Your task to perform on an android device: turn on bluetooth scan Image 0: 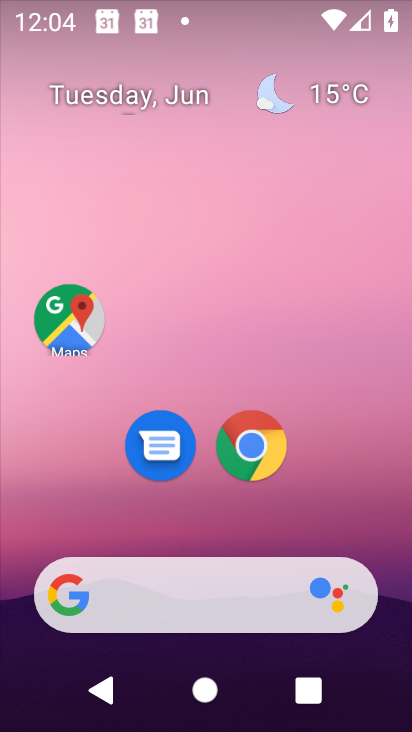
Step 0: drag from (190, 542) to (189, 109)
Your task to perform on an android device: turn on bluetooth scan Image 1: 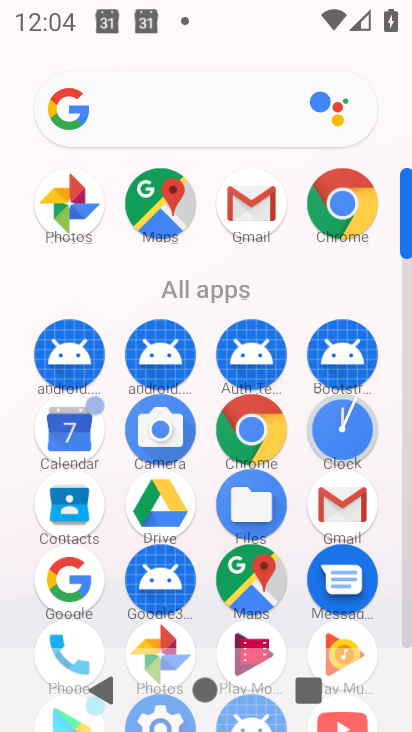
Step 1: drag from (208, 629) to (231, 20)
Your task to perform on an android device: turn on bluetooth scan Image 2: 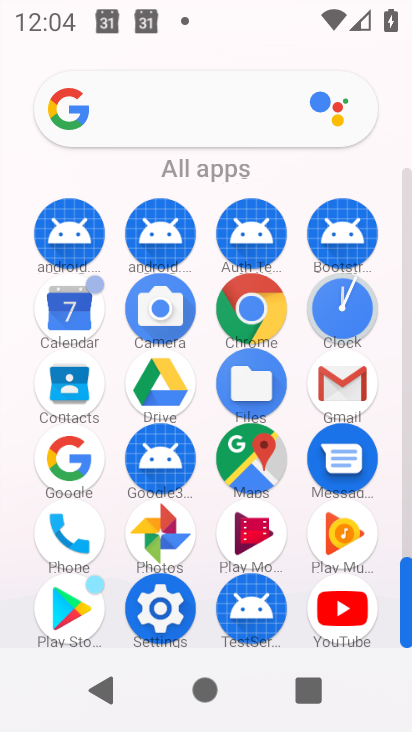
Step 2: click (179, 595)
Your task to perform on an android device: turn on bluetooth scan Image 3: 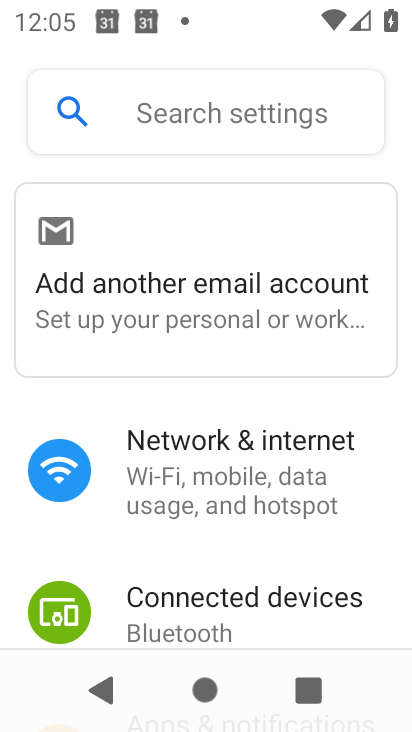
Step 3: drag from (179, 595) to (207, 150)
Your task to perform on an android device: turn on bluetooth scan Image 4: 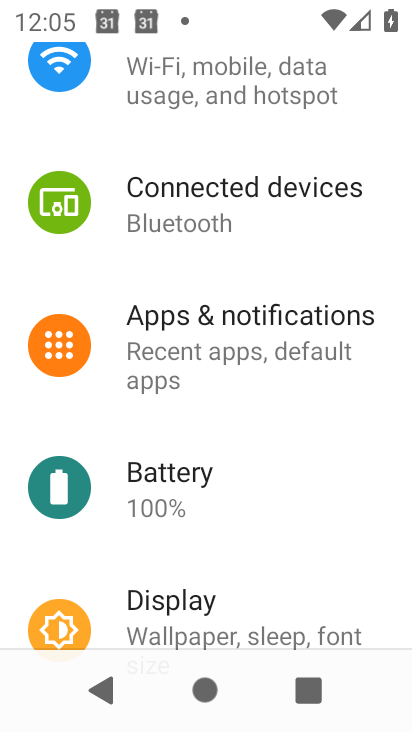
Step 4: drag from (133, 525) to (175, 67)
Your task to perform on an android device: turn on bluetooth scan Image 5: 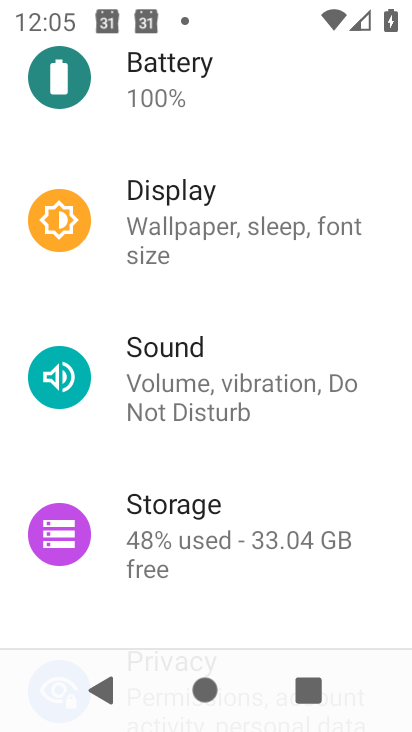
Step 5: drag from (122, 537) to (209, 16)
Your task to perform on an android device: turn on bluetooth scan Image 6: 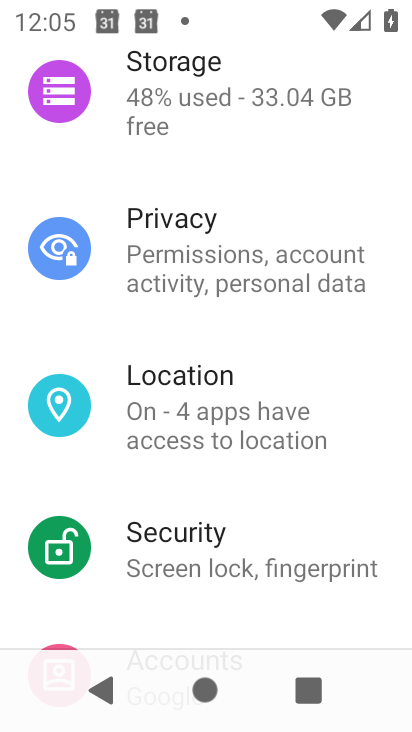
Step 6: click (184, 394)
Your task to perform on an android device: turn on bluetooth scan Image 7: 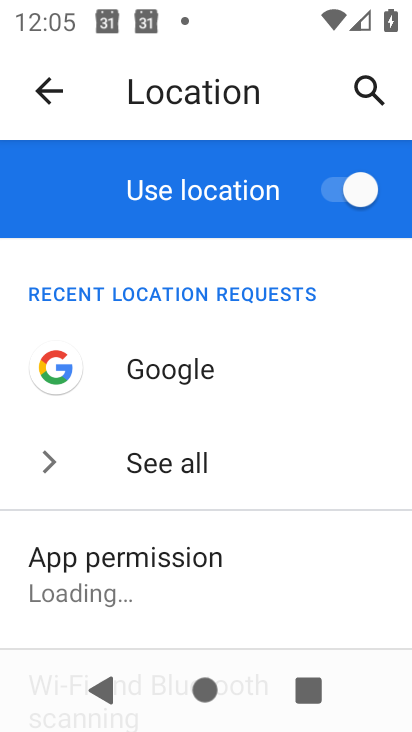
Step 7: drag from (113, 540) to (197, 29)
Your task to perform on an android device: turn on bluetooth scan Image 8: 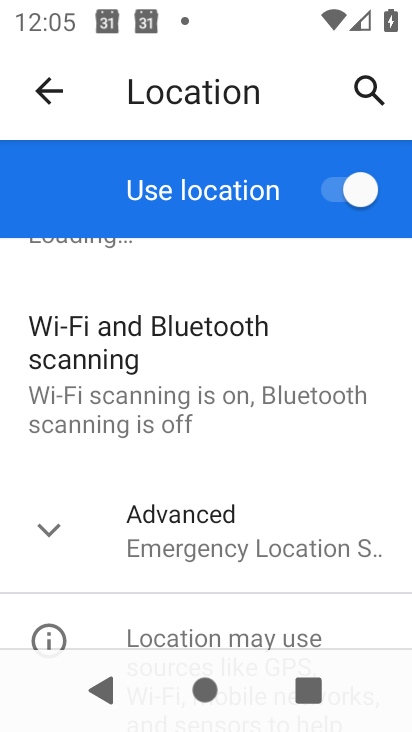
Step 8: click (124, 371)
Your task to perform on an android device: turn on bluetooth scan Image 9: 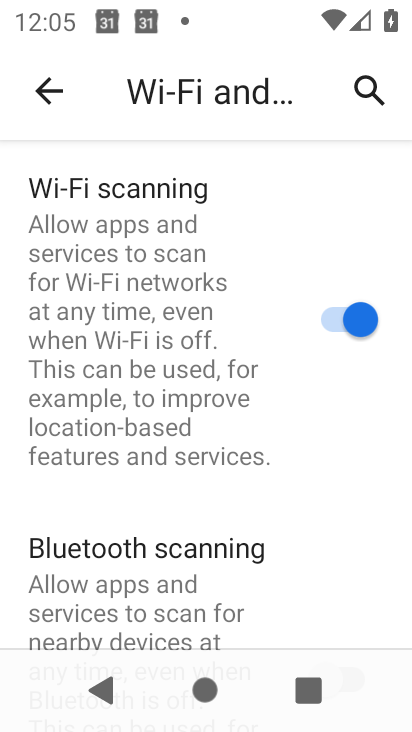
Step 9: drag from (279, 568) to (303, 177)
Your task to perform on an android device: turn on bluetooth scan Image 10: 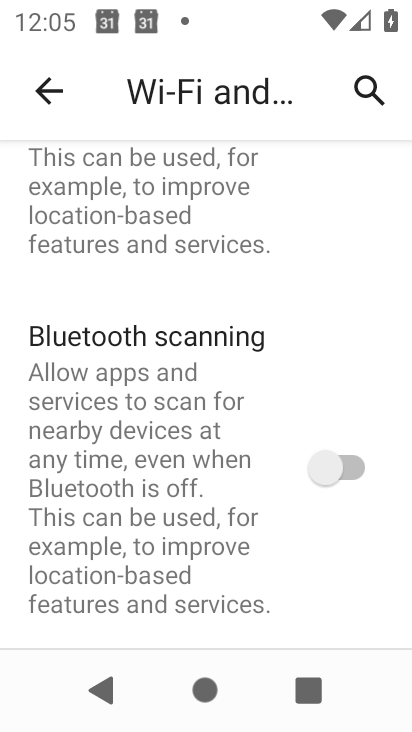
Step 10: click (341, 475)
Your task to perform on an android device: turn on bluetooth scan Image 11: 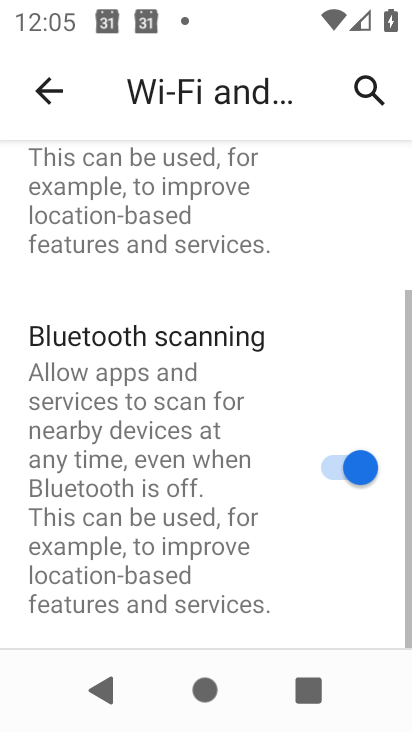
Step 11: task complete